Your task to perform on an android device: Go to Yahoo.com Image 0: 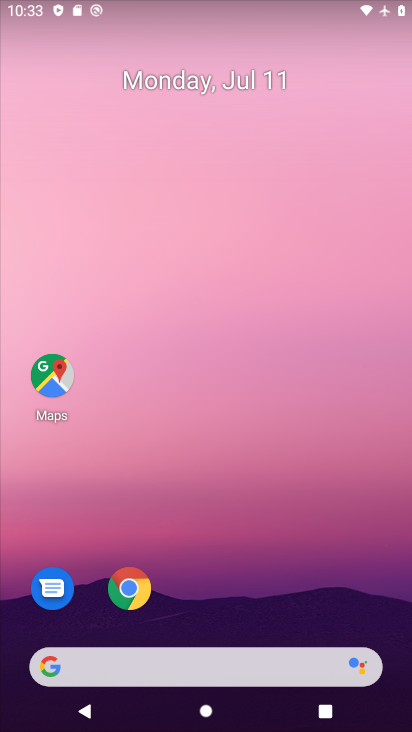
Step 0: press home button
Your task to perform on an android device: Go to Yahoo.com Image 1: 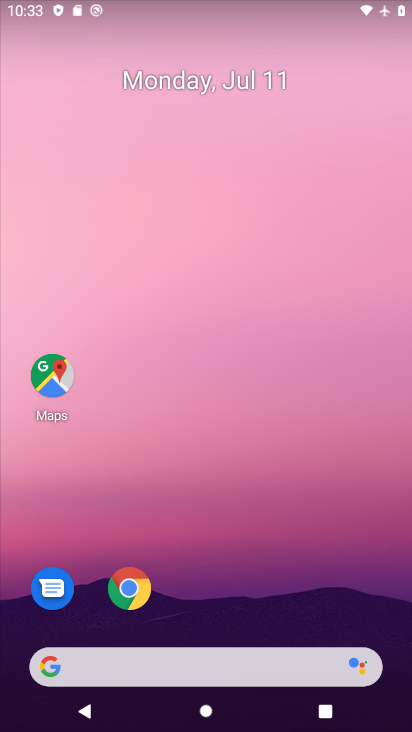
Step 1: click (136, 578)
Your task to perform on an android device: Go to Yahoo.com Image 2: 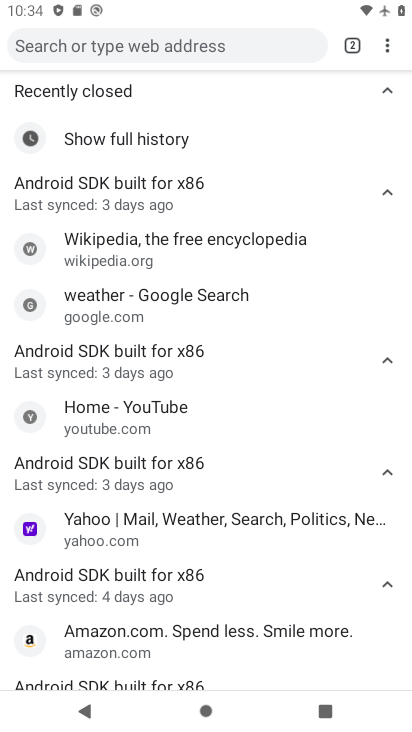
Step 2: drag from (385, 49) to (263, 94)
Your task to perform on an android device: Go to Yahoo.com Image 3: 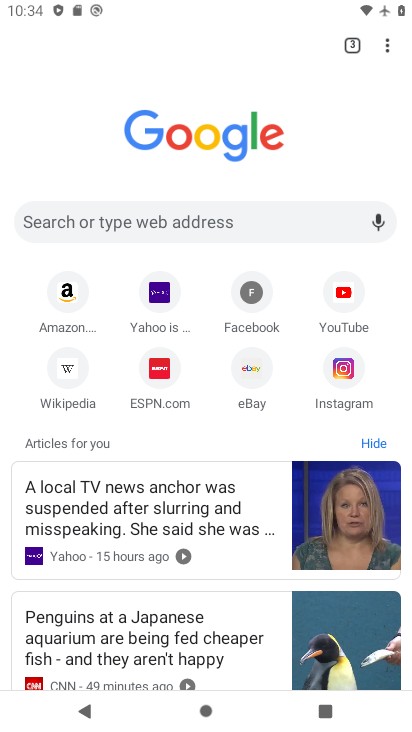
Step 3: click (159, 294)
Your task to perform on an android device: Go to Yahoo.com Image 4: 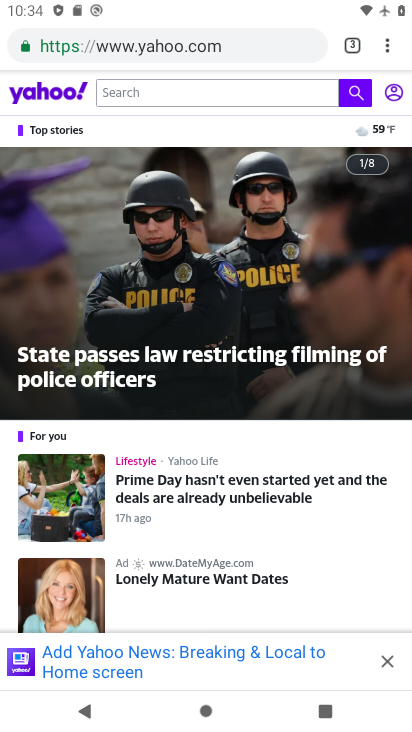
Step 4: task complete